Your task to perform on an android device: clear history in the chrome app Image 0: 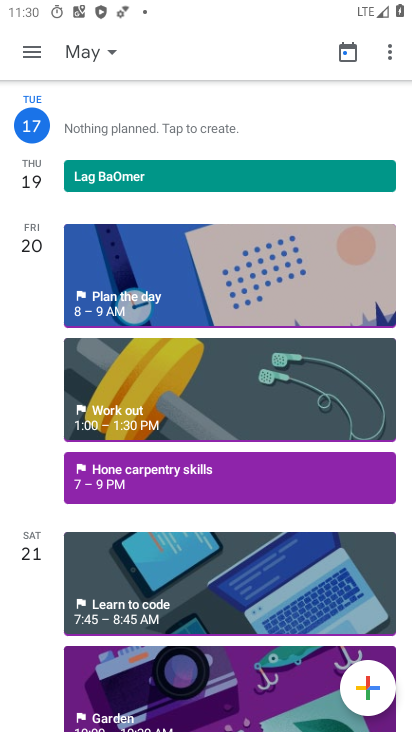
Step 0: press home button
Your task to perform on an android device: clear history in the chrome app Image 1: 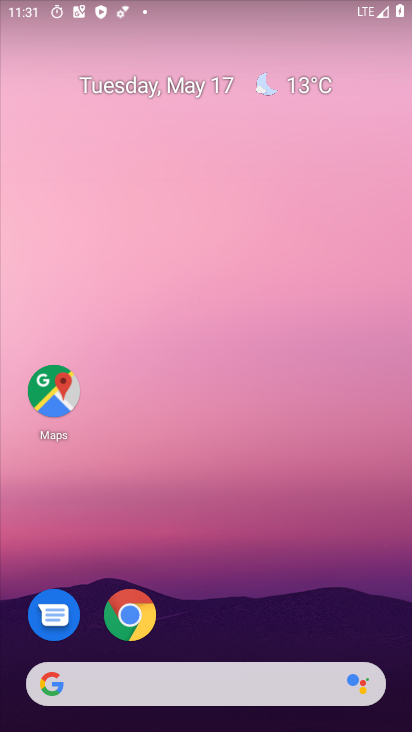
Step 1: click (134, 619)
Your task to perform on an android device: clear history in the chrome app Image 2: 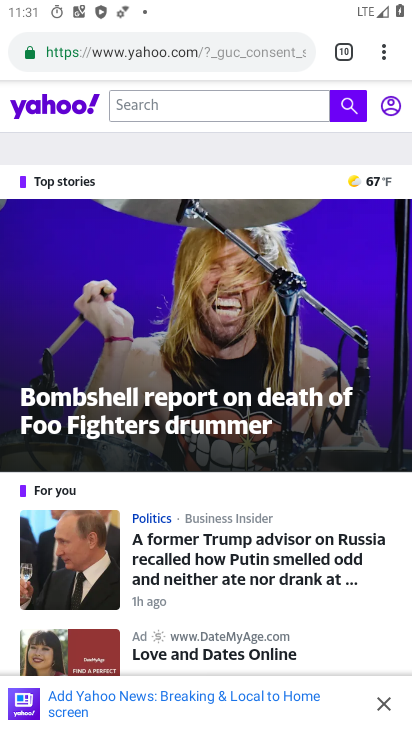
Step 2: drag from (381, 53) to (228, 279)
Your task to perform on an android device: clear history in the chrome app Image 3: 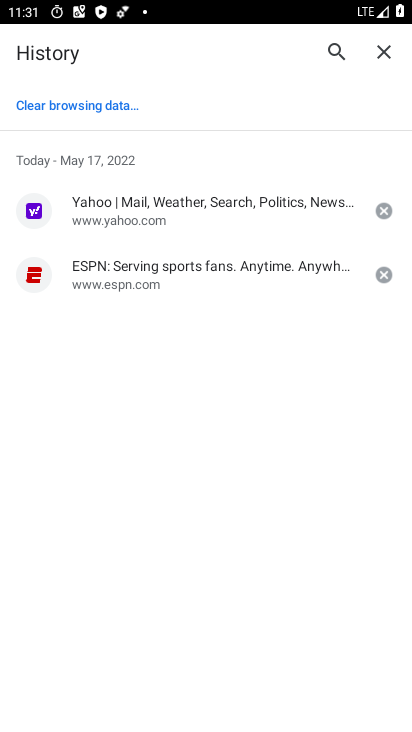
Step 3: click (103, 108)
Your task to perform on an android device: clear history in the chrome app Image 4: 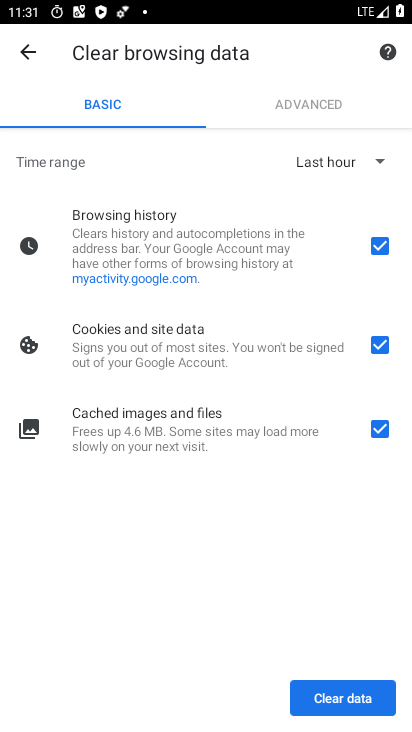
Step 4: click (346, 696)
Your task to perform on an android device: clear history in the chrome app Image 5: 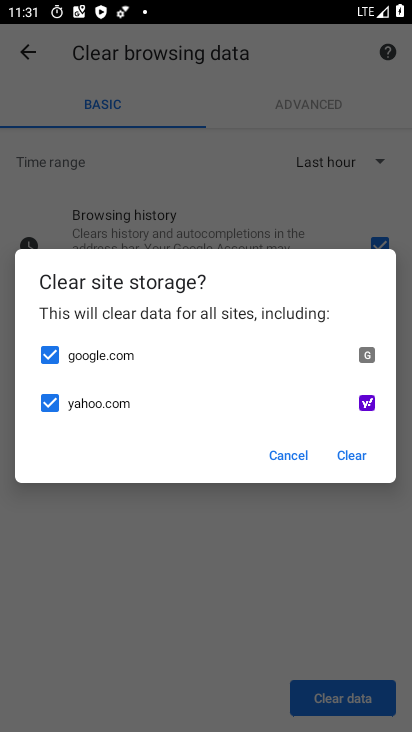
Step 5: click (340, 459)
Your task to perform on an android device: clear history in the chrome app Image 6: 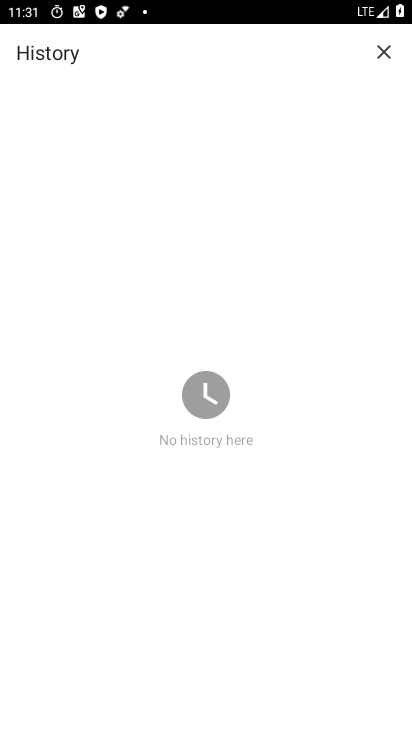
Step 6: task complete